Your task to perform on an android device: Open calendar and show me the first week of next month Image 0: 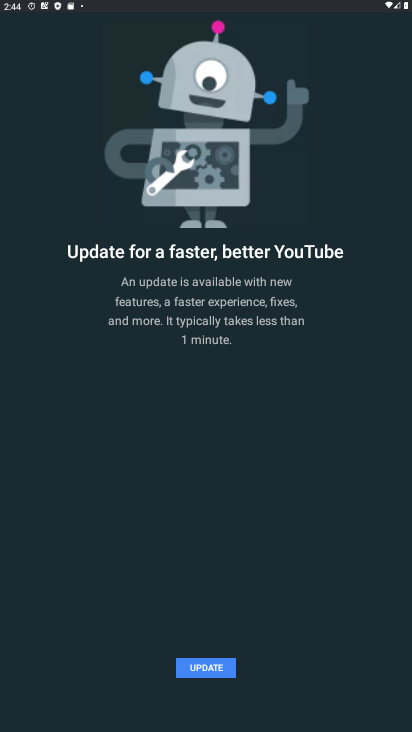
Step 0: press home button
Your task to perform on an android device: Open calendar and show me the first week of next month Image 1: 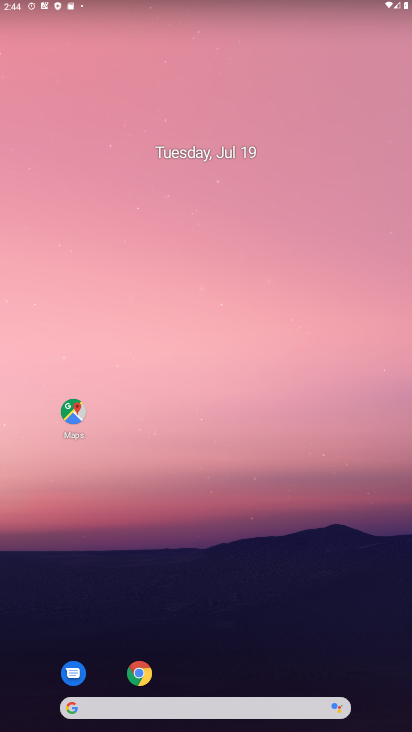
Step 1: drag from (212, 629) to (216, 304)
Your task to perform on an android device: Open calendar and show me the first week of next month Image 2: 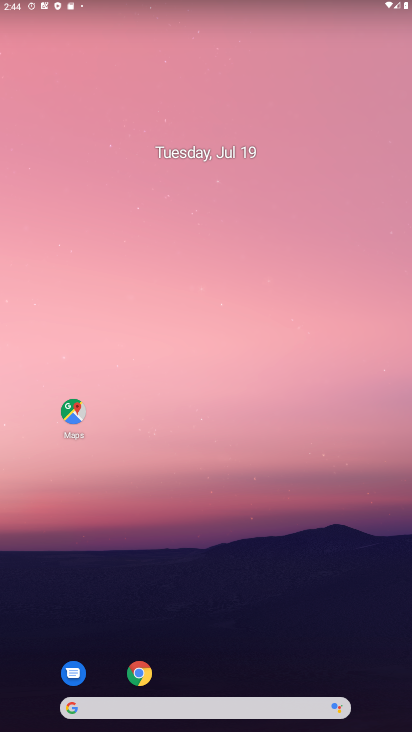
Step 2: drag from (247, 639) to (253, 78)
Your task to perform on an android device: Open calendar and show me the first week of next month Image 3: 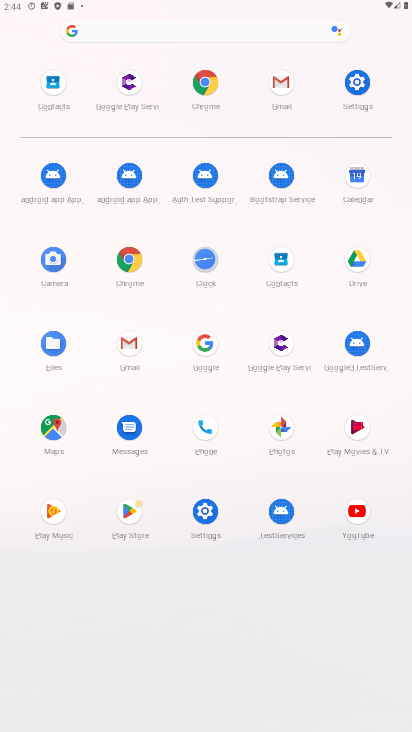
Step 3: click (360, 193)
Your task to perform on an android device: Open calendar and show me the first week of next month Image 4: 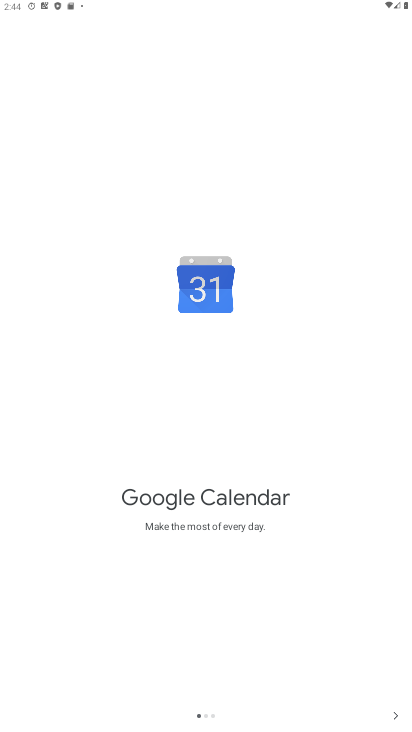
Step 4: click (393, 715)
Your task to perform on an android device: Open calendar and show me the first week of next month Image 5: 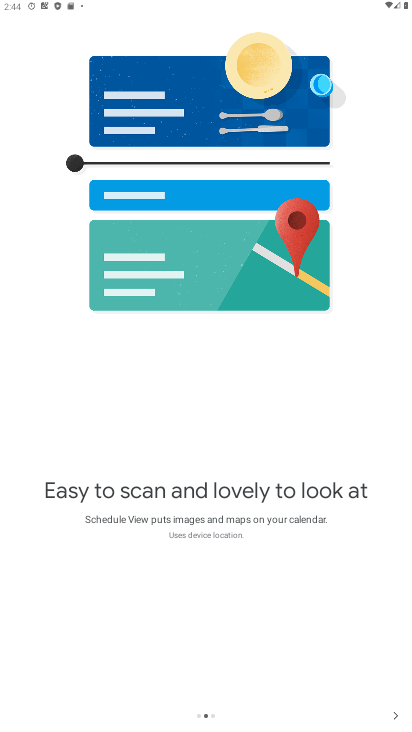
Step 5: click (395, 718)
Your task to perform on an android device: Open calendar and show me the first week of next month Image 6: 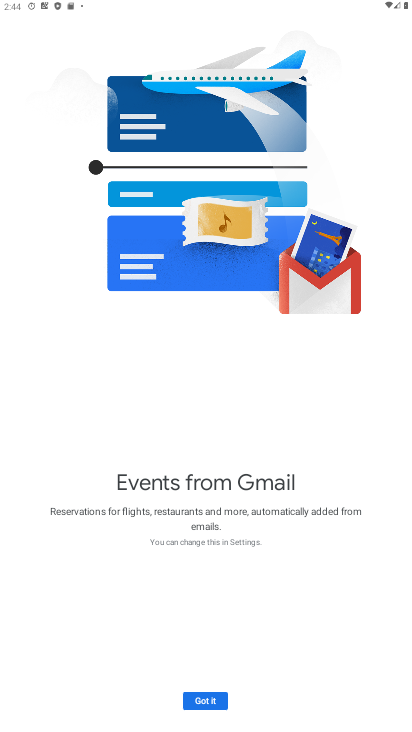
Step 6: click (216, 698)
Your task to perform on an android device: Open calendar and show me the first week of next month Image 7: 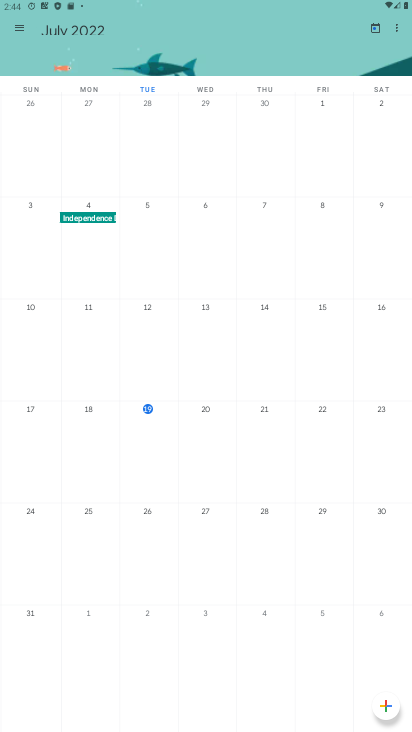
Step 7: click (88, 26)
Your task to perform on an android device: Open calendar and show me the first week of next month Image 8: 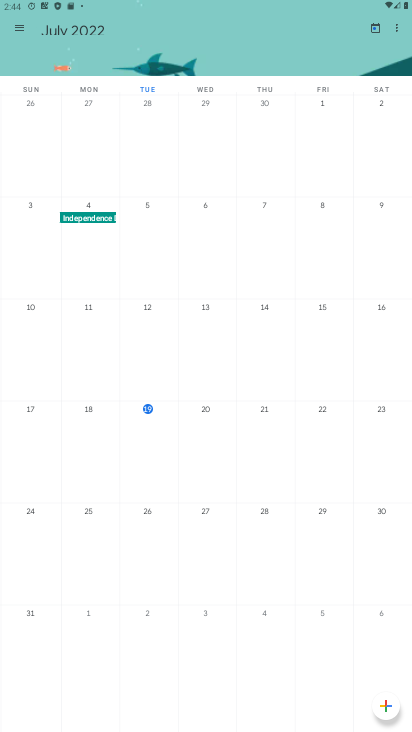
Step 8: drag from (322, 235) to (1, 242)
Your task to perform on an android device: Open calendar and show me the first week of next month Image 9: 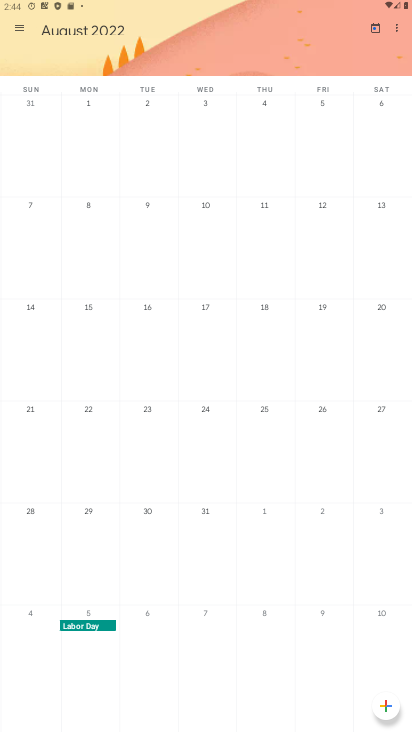
Step 9: click (17, 32)
Your task to perform on an android device: Open calendar and show me the first week of next month Image 10: 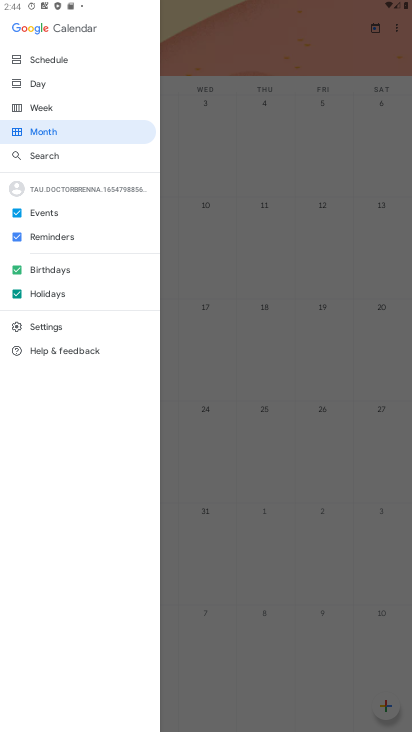
Step 10: click (41, 105)
Your task to perform on an android device: Open calendar and show me the first week of next month Image 11: 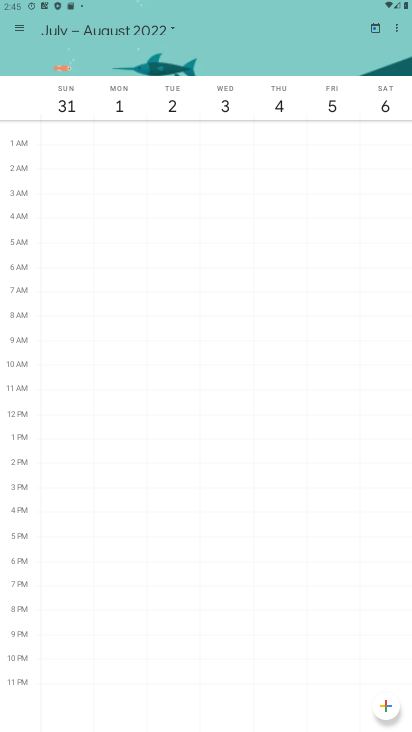
Step 11: task complete